Your task to perform on an android device: uninstall "Google Calendar" Image 0: 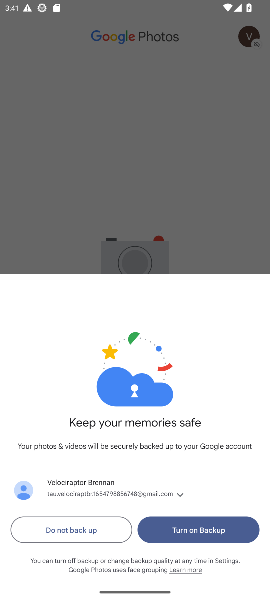
Step 0: press home button
Your task to perform on an android device: uninstall "Google Calendar" Image 1: 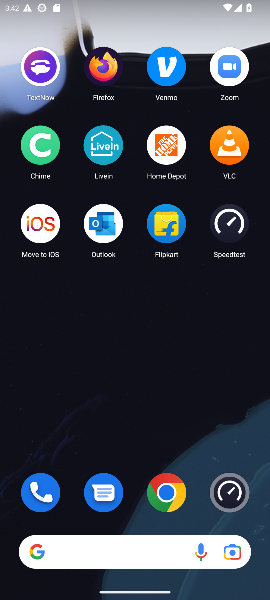
Step 1: click (144, 18)
Your task to perform on an android device: uninstall "Google Calendar" Image 2: 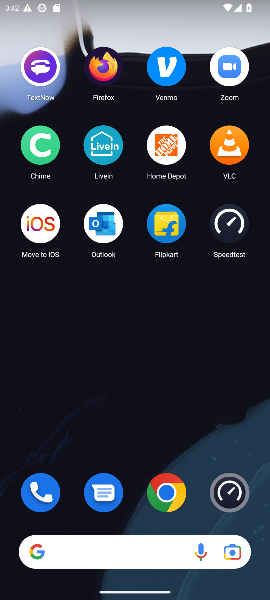
Step 2: drag from (142, 509) to (155, 37)
Your task to perform on an android device: uninstall "Google Calendar" Image 3: 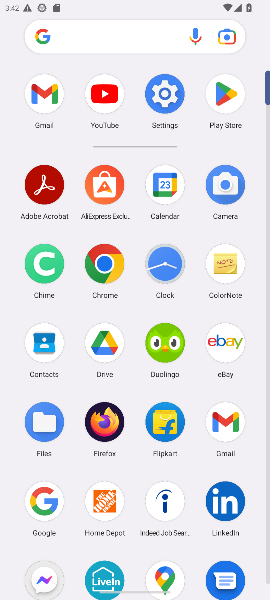
Step 3: click (155, 29)
Your task to perform on an android device: uninstall "Google Calendar" Image 4: 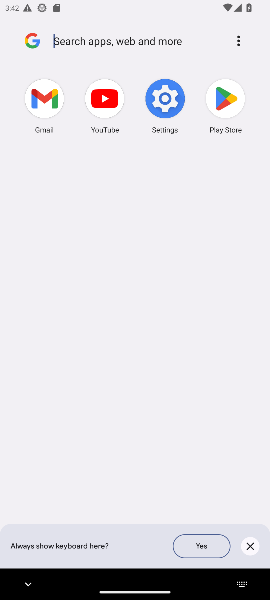
Step 4: task complete